Your task to perform on an android device: Open calendar and show me the third week of next month Image 0: 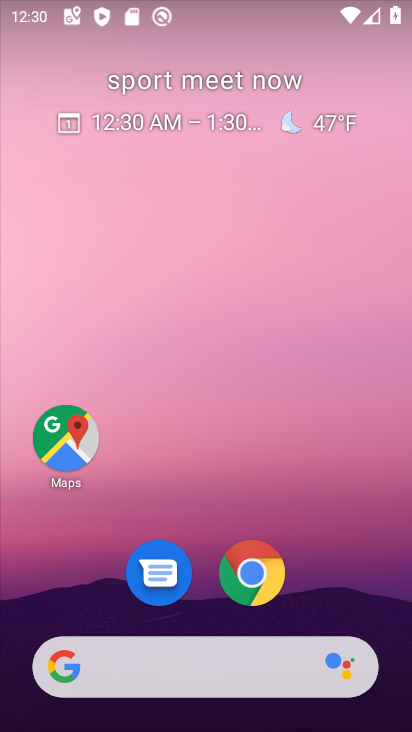
Step 0: press home button
Your task to perform on an android device: Open calendar and show me the third week of next month Image 1: 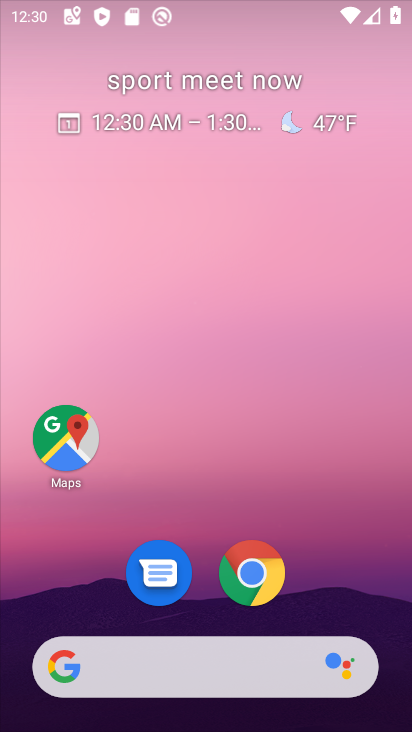
Step 1: drag from (227, 622) to (286, 241)
Your task to perform on an android device: Open calendar and show me the third week of next month Image 2: 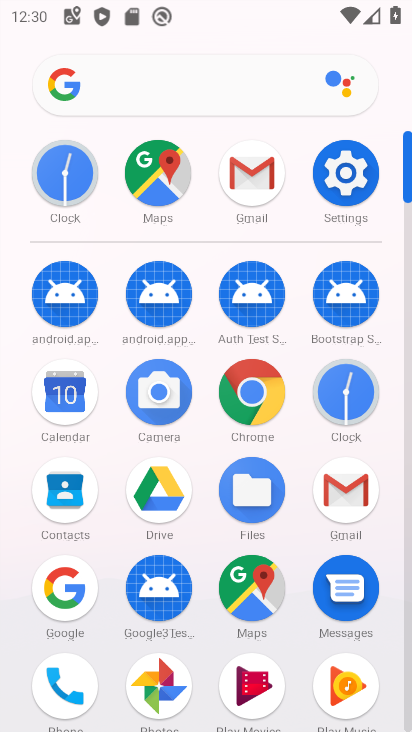
Step 2: click (63, 382)
Your task to perform on an android device: Open calendar and show me the third week of next month Image 3: 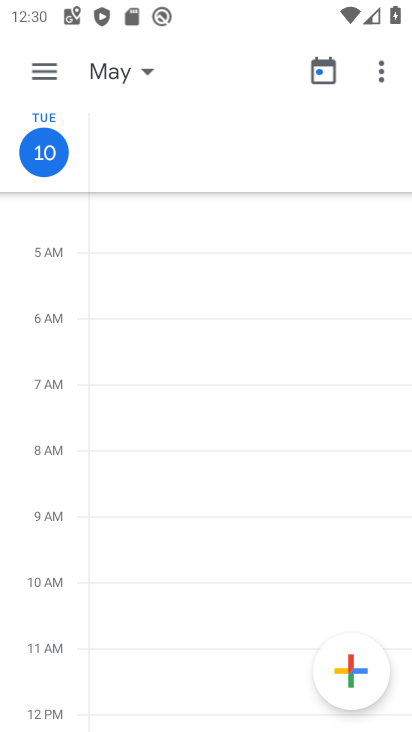
Step 3: click (151, 61)
Your task to perform on an android device: Open calendar and show me the third week of next month Image 4: 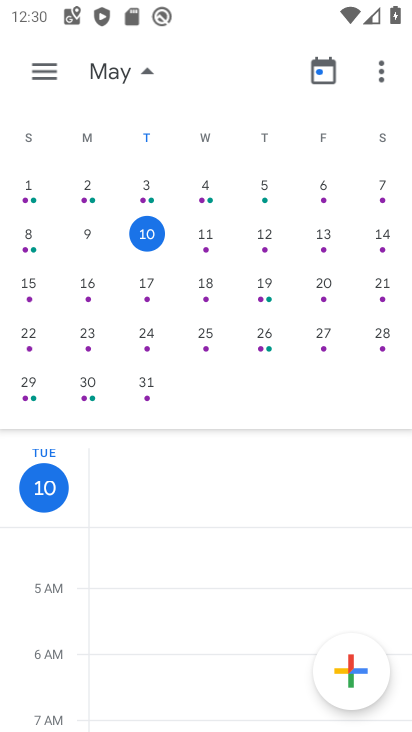
Step 4: drag from (359, 258) to (12, 319)
Your task to perform on an android device: Open calendar and show me the third week of next month Image 5: 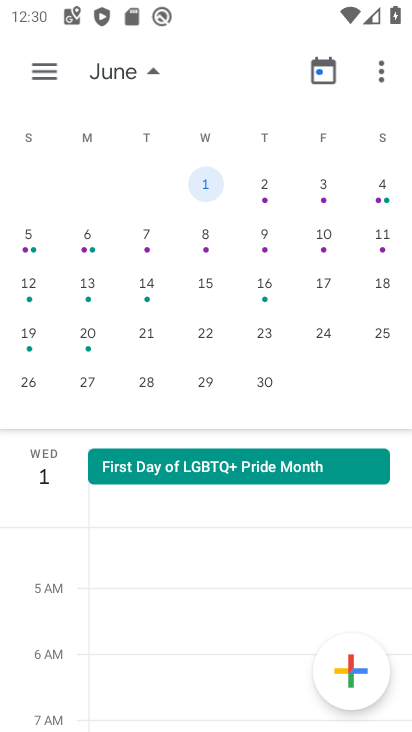
Step 5: click (229, 284)
Your task to perform on an android device: Open calendar and show me the third week of next month Image 6: 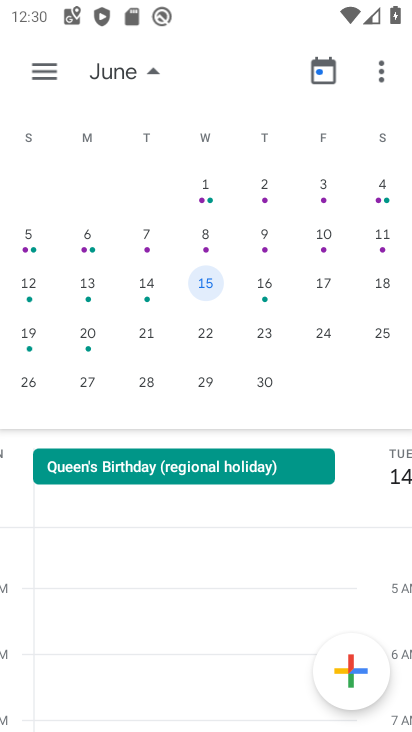
Step 6: click (218, 281)
Your task to perform on an android device: Open calendar and show me the third week of next month Image 7: 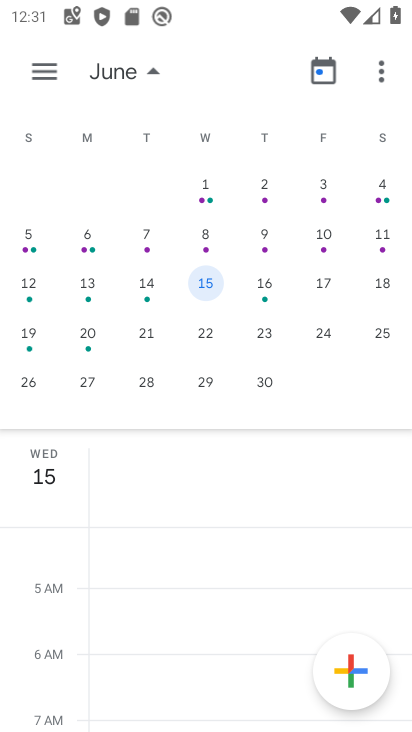
Step 7: click (201, 277)
Your task to perform on an android device: Open calendar and show me the third week of next month Image 8: 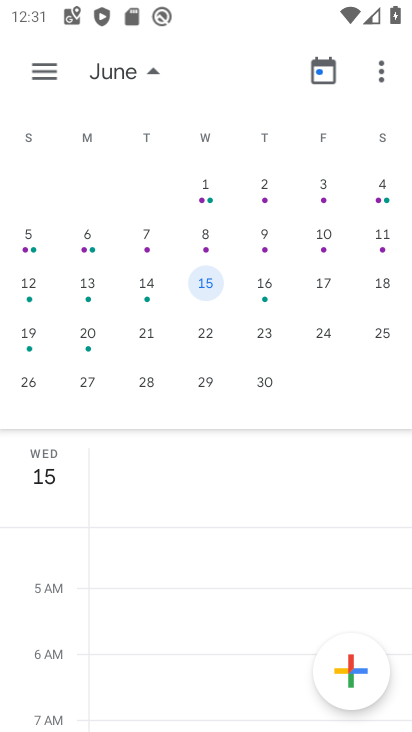
Step 8: task complete